Your task to perform on an android device: Go to accessibility settings Image 0: 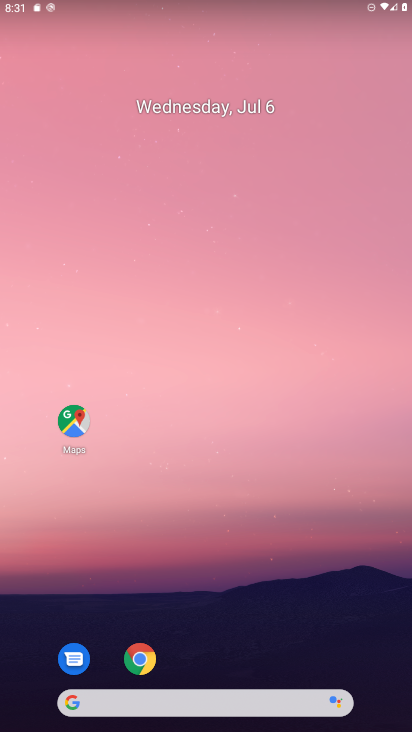
Step 0: drag from (254, 558) to (412, 71)
Your task to perform on an android device: Go to accessibility settings Image 1: 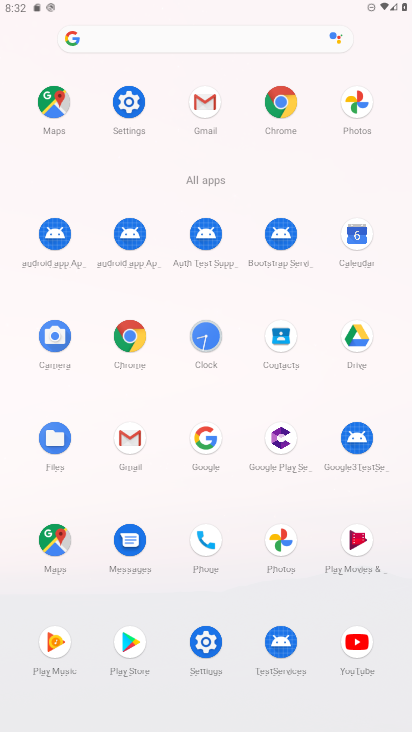
Step 1: drag from (292, 308) to (344, 75)
Your task to perform on an android device: Go to accessibility settings Image 2: 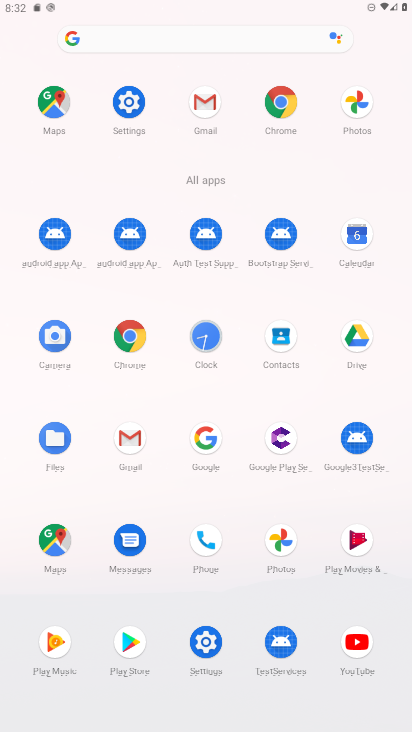
Step 2: click (217, 655)
Your task to perform on an android device: Go to accessibility settings Image 3: 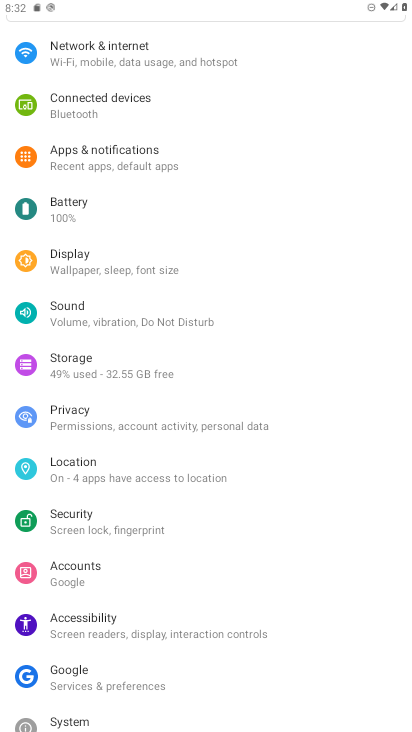
Step 3: drag from (257, 621) to (282, 353)
Your task to perform on an android device: Go to accessibility settings Image 4: 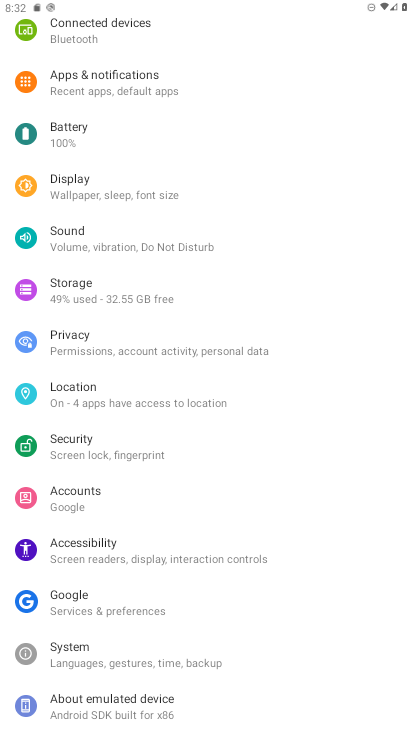
Step 4: click (167, 552)
Your task to perform on an android device: Go to accessibility settings Image 5: 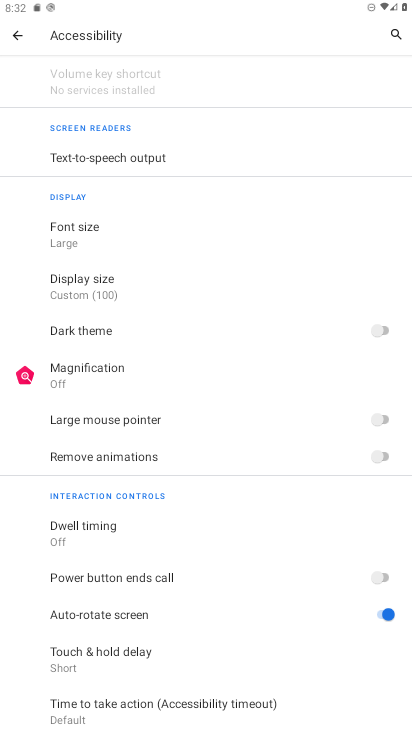
Step 5: task complete